Your task to perform on an android device: Open calendar and show me the second week of next month Image 0: 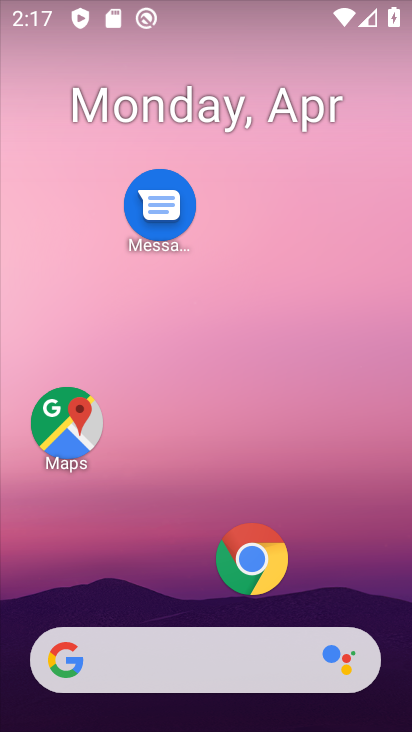
Step 0: drag from (169, 576) to (192, 4)
Your task to perform on an android device: Open calendar and show me the second week of next month Image 1: 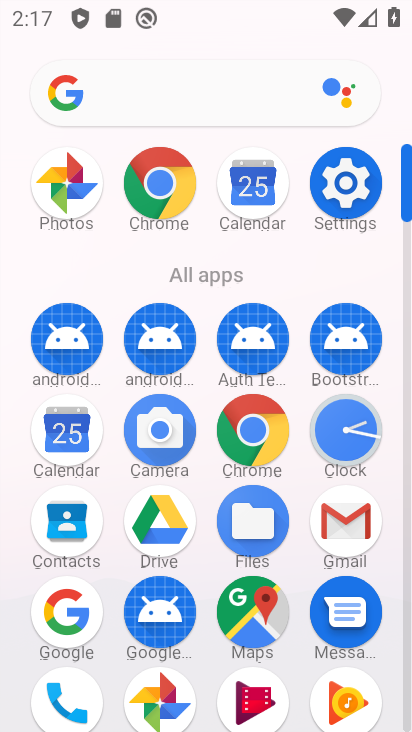
Step 1: click (81, 445)
Your task to perform on an android device: Open calendar and show me the second week of next month Image 2: 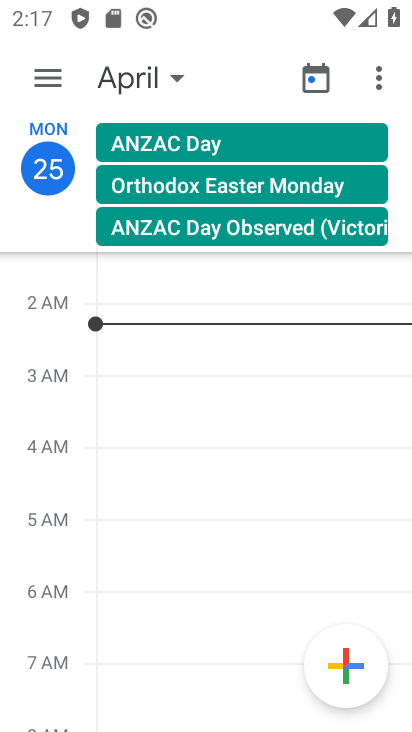
Step 2: click (46, 62)
Your task to perform on an android device: Open calendar and show me the second week of next month Image 3: 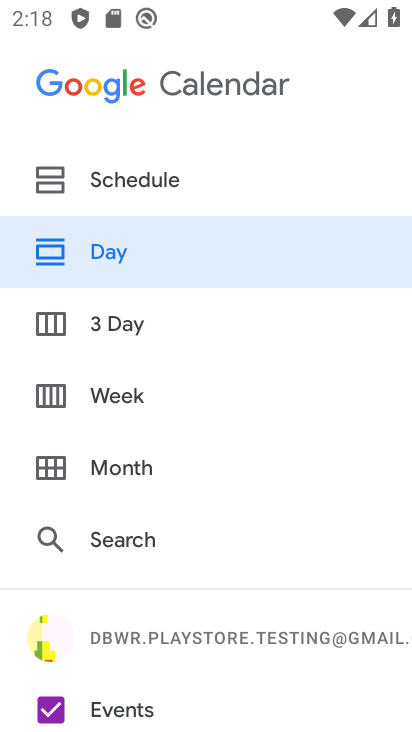
Step 3: click (113, 399)
Your task to perform on an android device: Open calendar and show me the second week of next month Image 4: 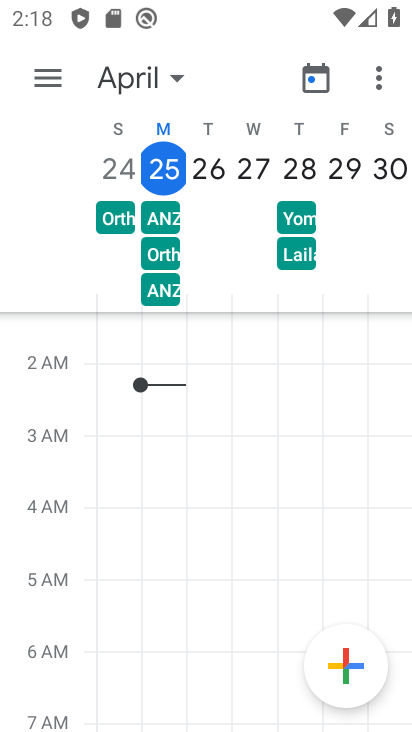
Step 4: task complete